Your task to perform on an android device: open app "Adobe Acrobat Reader: Edit PDF" (install if not already installed), go to login, and select forgot password Image 0: 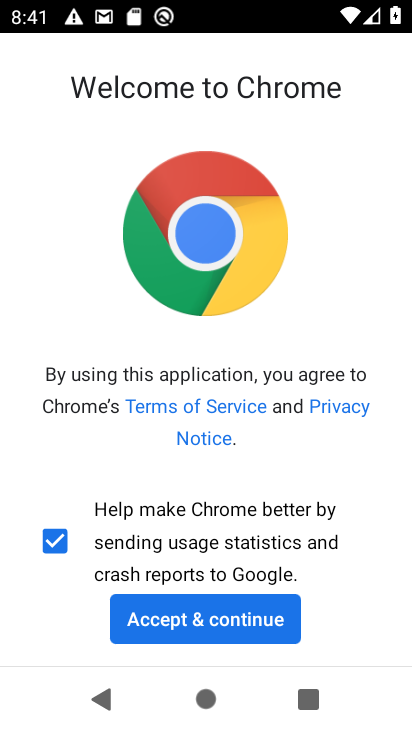
Step 0: press home button
Your task to perform on an android device: open app "Adobe Acrobat Reader: Edit PDF" (install if not already installed), go to login, and select forgot password Image 1: 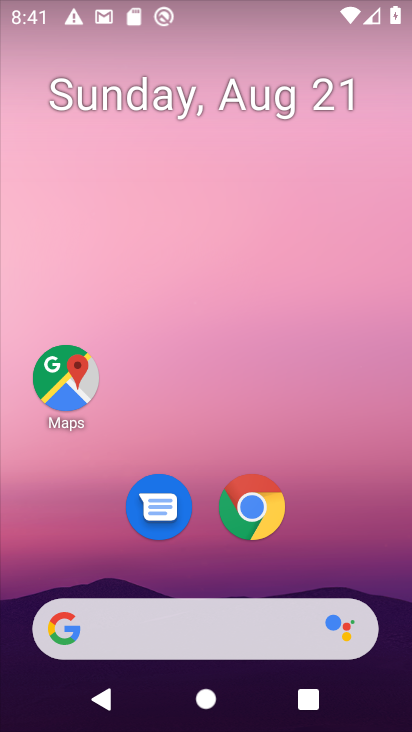
Step 1: drag from (172, 587) to (162, 42)
Your task to perform on an android device: open app "Adobe Acrobat Reader: Edit PDF" (install if not already installed), go to login, and select forgot password Image 2: 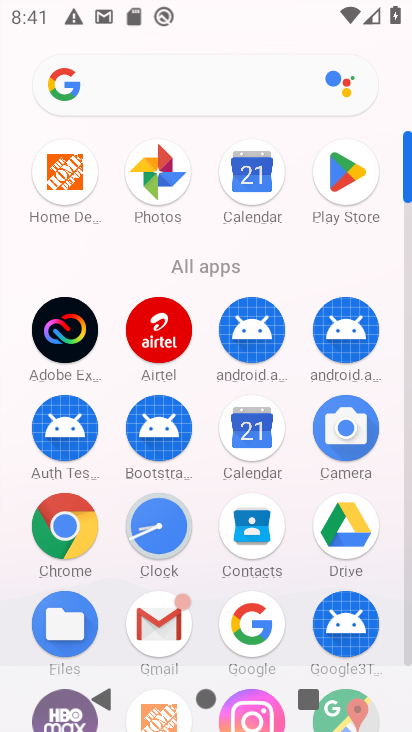
Step 2: click (346, 179)
Your task to perform on an android device: open app "Adobe Acrobat Reader: Edit PDF" (install if not already installed), go to login, and select forgot password Image 3: 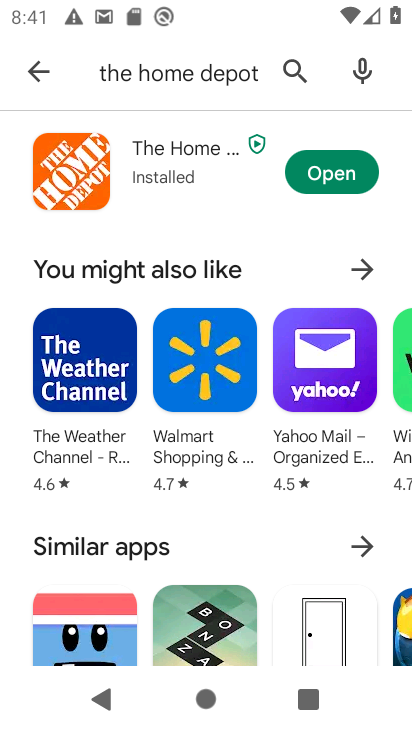
Step 3: click (32, 72)
Your task to perform on an android device: open app "Adobe Acrobat Reader: Edit PDF" (install if not already installed), go to login, and select forgot password Image 4: 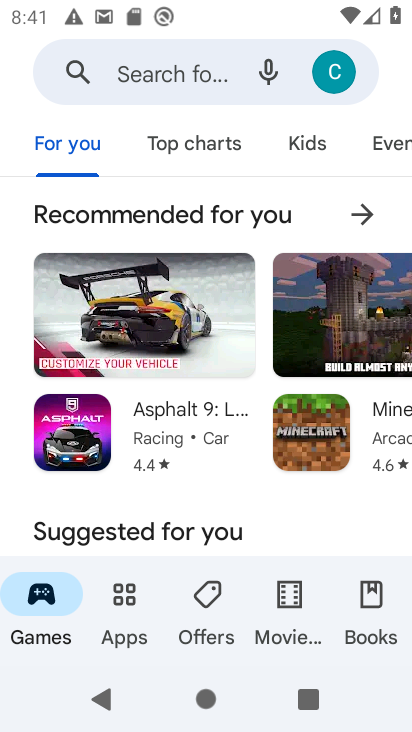
Step 4: click (142, 78)
Your task to perform on an android device: open app "Adobe Acrobat Reader: Edit PDF" (install if not already installed), go to login, and select forgot password Image 5: 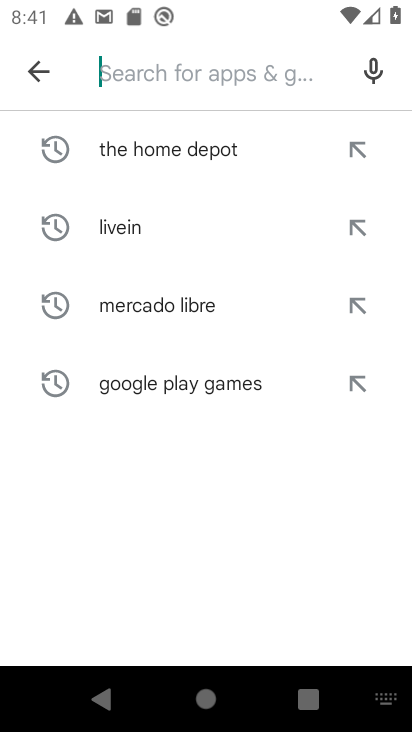
Step 5: type "Adobe Acrobat Reader: Edit PDF"
Your task to perform on an android device: open app "Adobe Acrobat Reader: Edit PDF" (install if not already installed), go to login, and select forgot password Image 6: 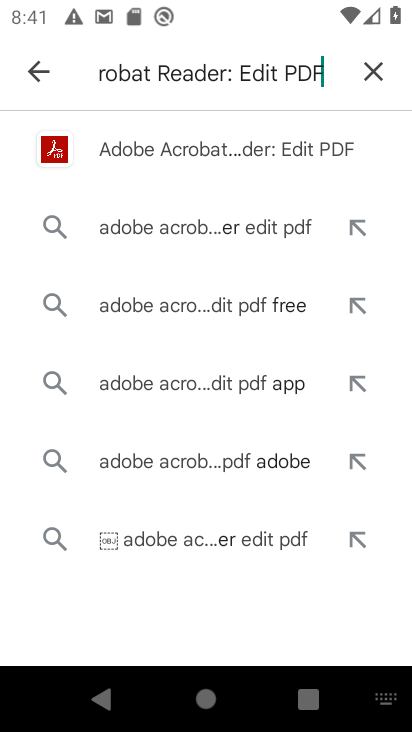
Step 6: click (214, 140)
Your task to perform on an android device: open app "Adobe Acrobat Reader: Edit PDF" (install if not already installed), go to login, and select forgot password Image 7: 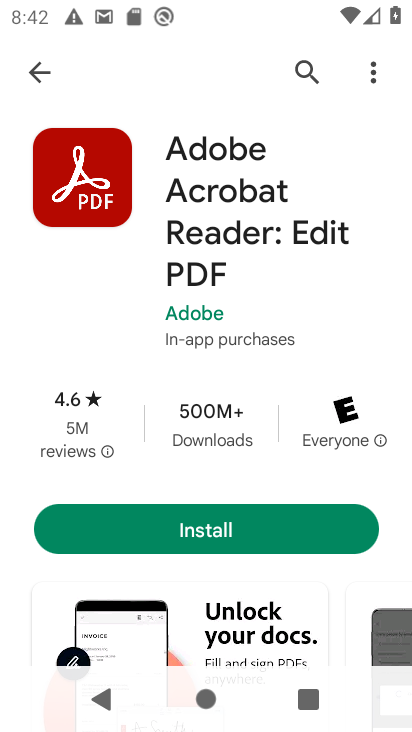
Step 7: click (202, 524)
Your task to perform on an android device: open app "Adobe Acrobat Reader: Edit PDF" (install if not already installed), go to login, and select forgot password Image 8: 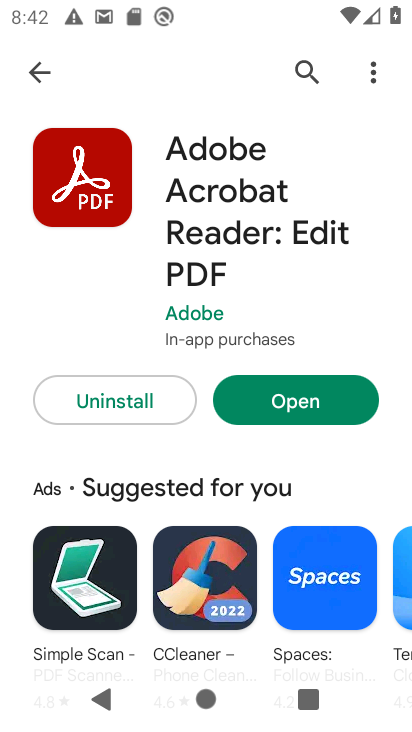
Step 8: click (304, 395)
Your task to perform on an android device: open app "Adobe Acrobat Reader: Edit PDF" (install if not already installed), go to login, and select forgot password Image 9: 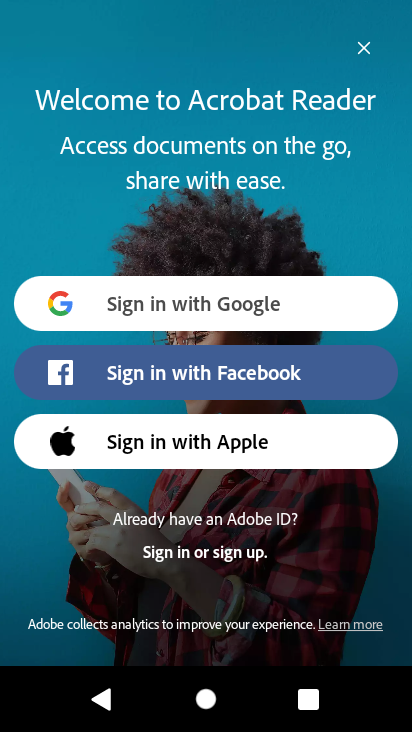
Step 9: click (167, 557)
Your task to perform on an android device: open app "Adobe Acrobat Reader: Edit PDF" (install if not already installed), go to login, and select forgot password Image 10: 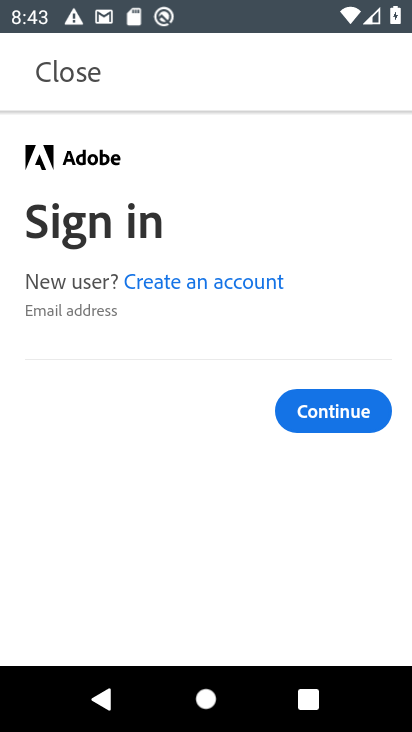
Step 10: press back button
Your task to perform on an android device: open app "Adobe Acrobat Reader: Edit PDF" (install if not already installed), go to login, and select forgot password Image 11: 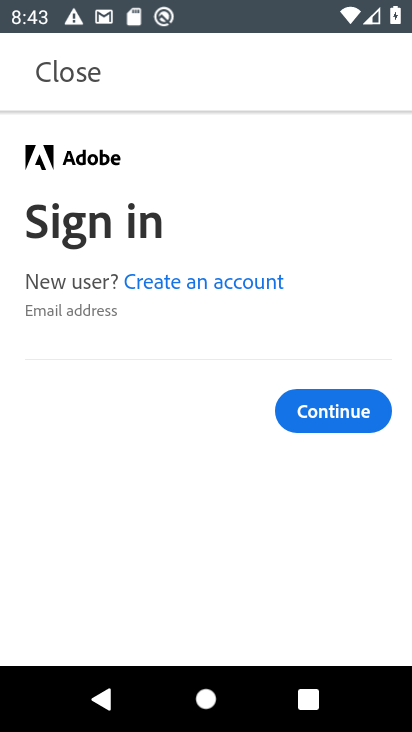
Step 11: press back button
Your task to perform on an android device: open app "Adobe Acrobat Reader: Edit PDF" (install if not already installed), go to login, and select forgot password Image 12: 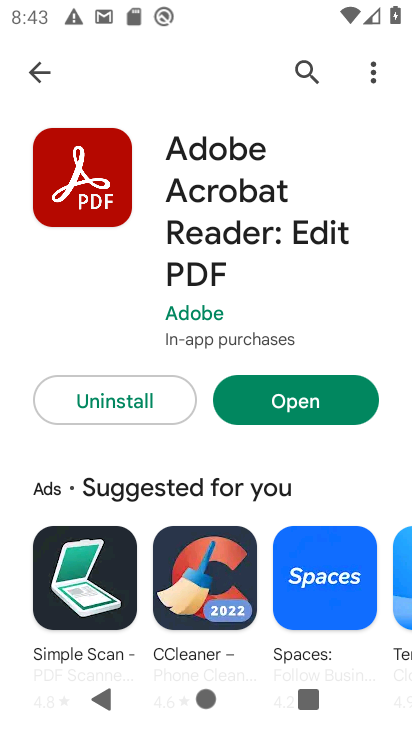
Step 12: click (311, 410)
Your task to perform on an android device: open app "Adobe Acrobat Reader: Edit PDF" (install if not already installed), go to login, and select forgot password Image 13: 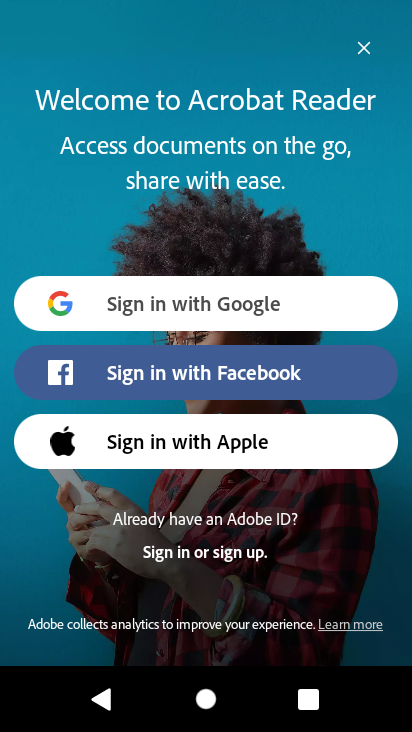
Step 13: click (222, 518)
Your task to perform on an android device: open app "Adobe Acrobat Reader: Edit PDF" (install if not already installed), go to login, and select forgot password Image 14: 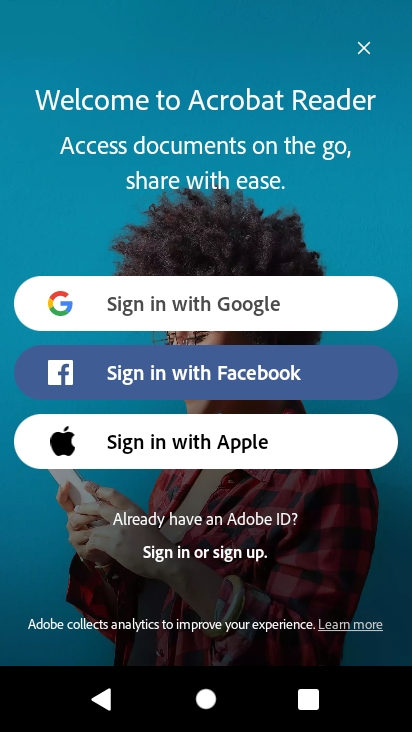
Step 14: click (287, 520)
Your task to perform on an android device: open app "Adobe Acrobat Reader: Edit PDF" (install if not already installed), go to login, and select forgot password Image 15: 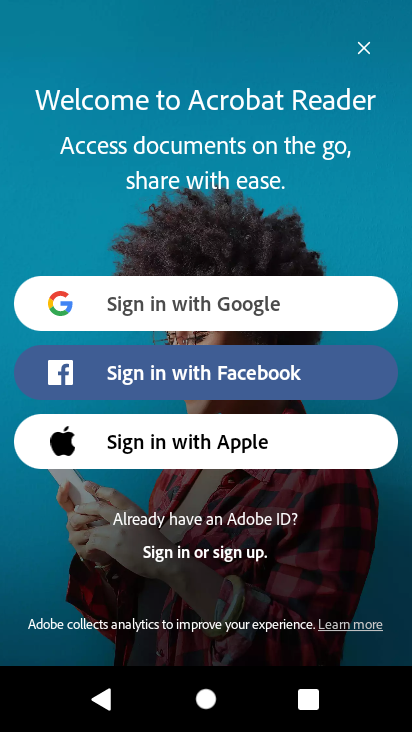
Step 15: click (287, 520)
Your task to perform on an android device: open app "Adobe Acrobat Reader: Edit PDF" (install if not already installed), go to login, and select forgot password Image 16: 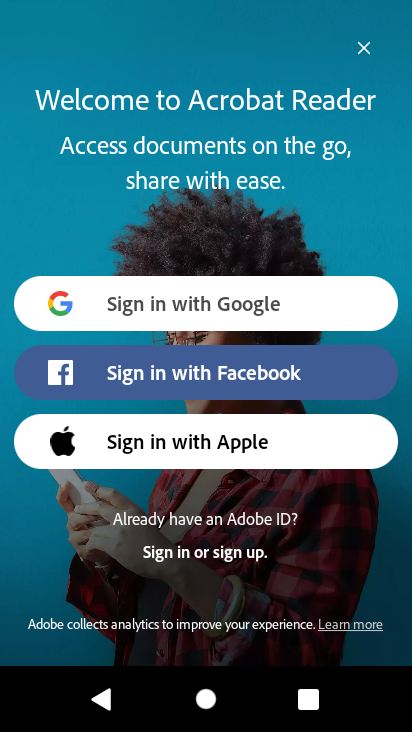
Step 16: click (287, 520)
Your task to perform on an android device: open app "Adobe Acrobat Reader: Edit PDF" (install if not already installed), go to login, and select forgot password Image 17: 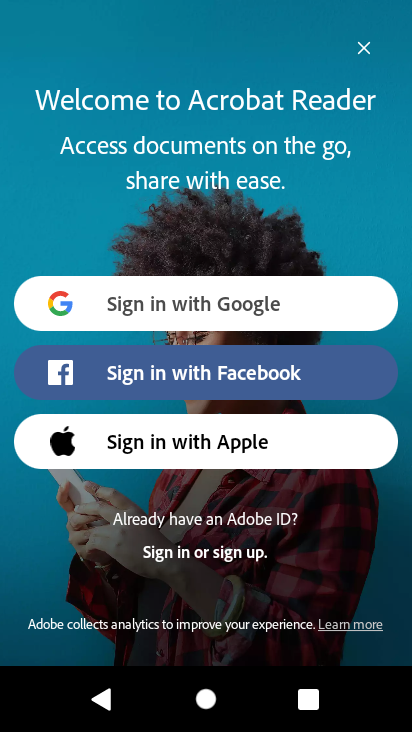
Step 17: click (287, 520)
Your task to perform on an android device: open app "Adobe Acrobat Reader: Edit PDF" (install if not already installed), go to login, and select forgot password Image 18: 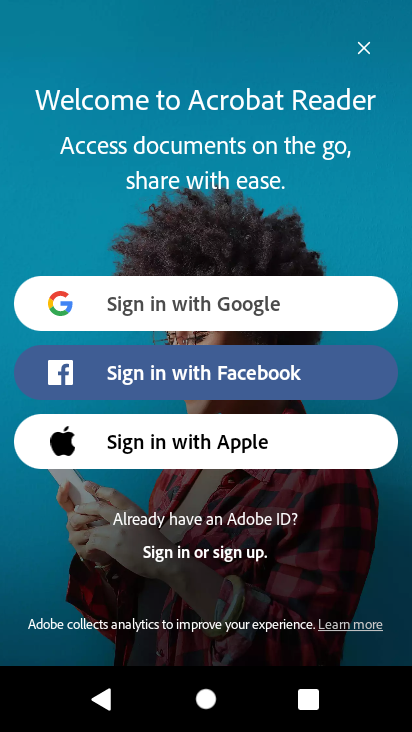
Step 18: click (236, 521)
Your task to perform on an android device: open app "Adobe Acrobat Reader: Edit PDF" (install if not already installed), go to login, and select forgot password Image 19: 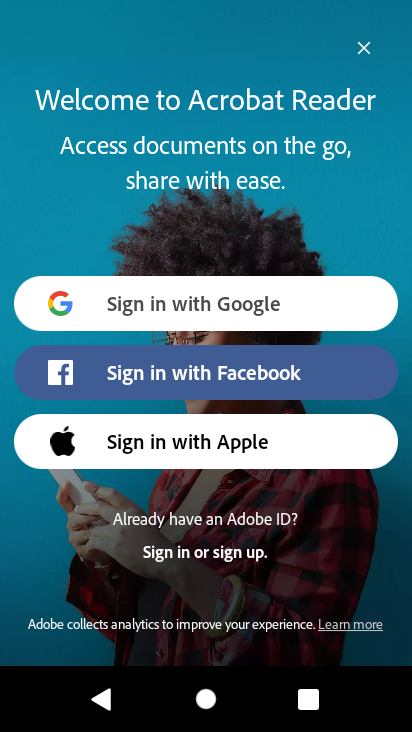
Step 19: click (165, 554)
Your task to perform on an android device: open app "Adobe Acrobat Reader: Edit PDF" (install if not already installed), go to login, and select forgot password Image 20: 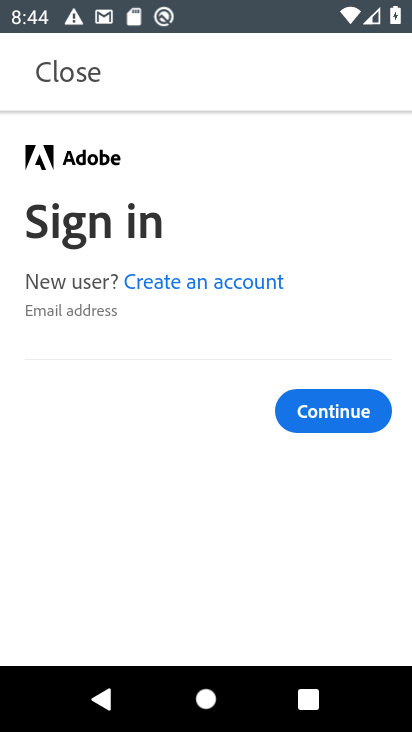
Step 20: task complete